Your task to perform on an android device: Is it going to rain this weekend? Image 0: 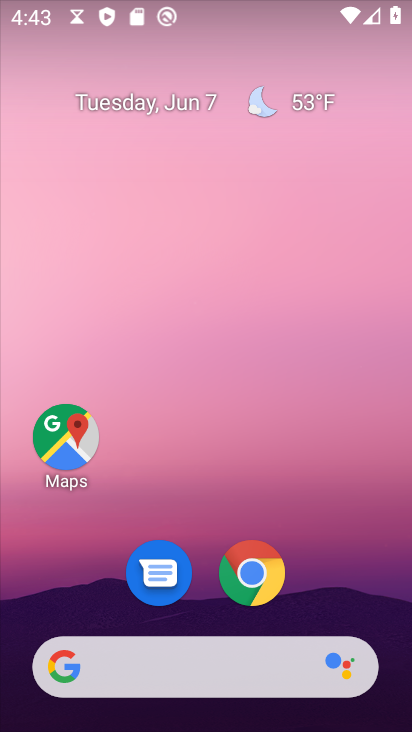
Step 0: click (220, 226)
Your task to perform on an android device: Is it going to rain this weekend? Image 1: 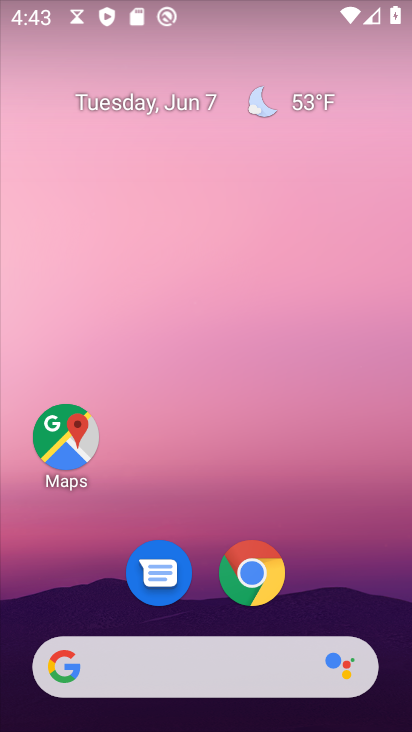
Step 1: drag from (244, 610) to (232, 101)
Your task to perform on an android device: Is it going to rain this weekend? Image 2: 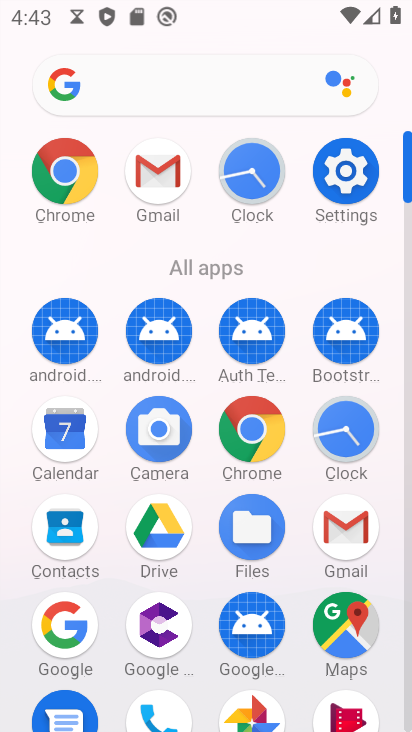
Step 2: click (68, 620)
Your task to perform on an android device: Is it going to rain this weekend? Image 3: 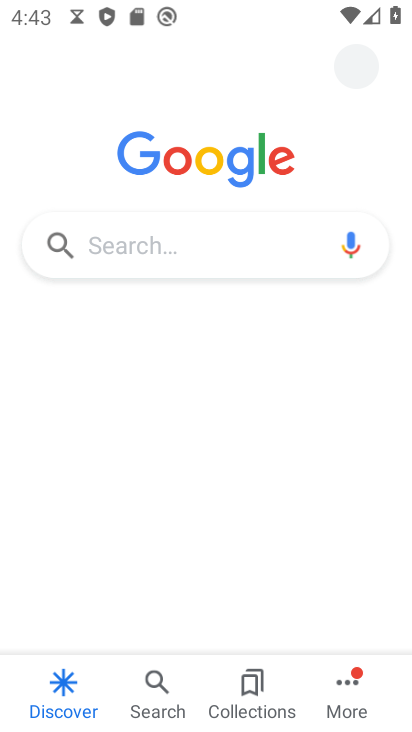
Step 3: click (141, 238)
Your task to perform on an android device: Is it going to rain this weekend? Image 4: 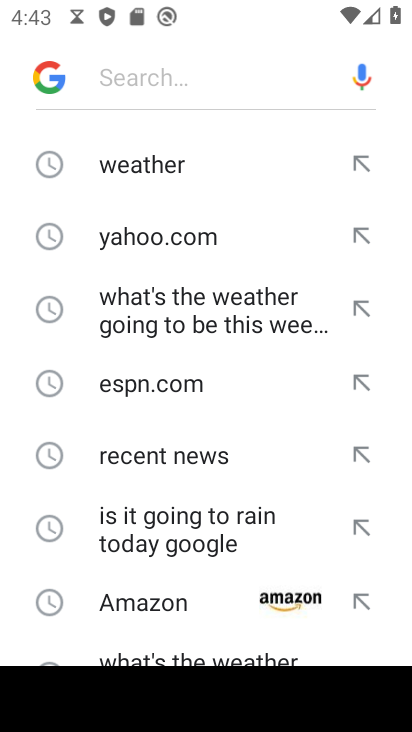
Step 4: drag from (157, 495) to (157, 107)
Your task to perform on an android device: Is it going to rain this weekend? Image 5: 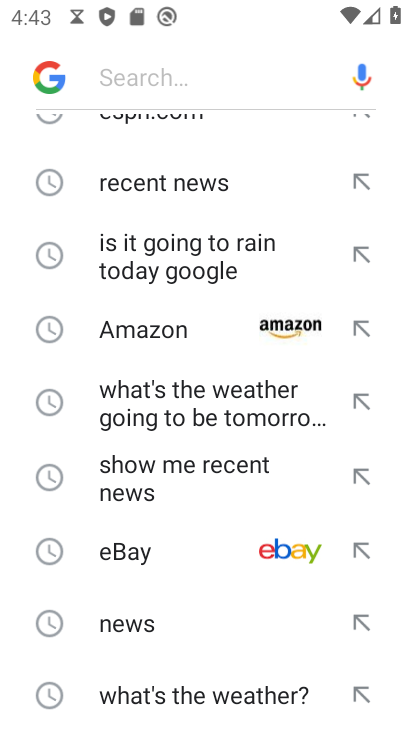
Step 5: drag from (124, 667) to (140, 278)
Your task to perform on an android device: Is it going to rain this weekend? Image 6: 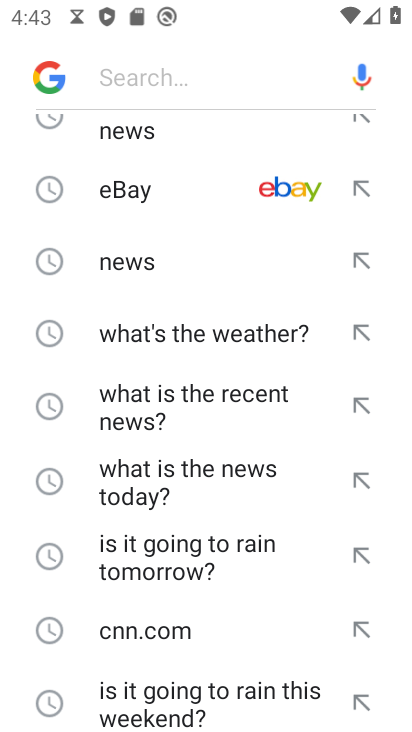
Step 6: drag from (157, 667) to (157, 312)
Your task to perform on an android device: Is it going to rain this weekend? Image 7: 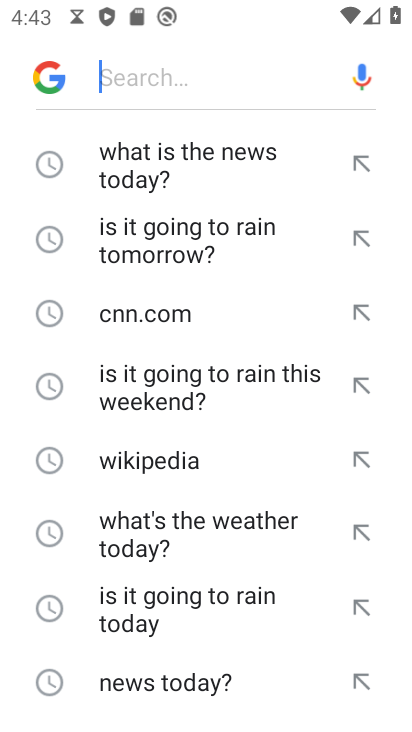
Step 7: click (156, 384)
Your task to perform on an android device: Is it going to rain this weekend? Image 8: 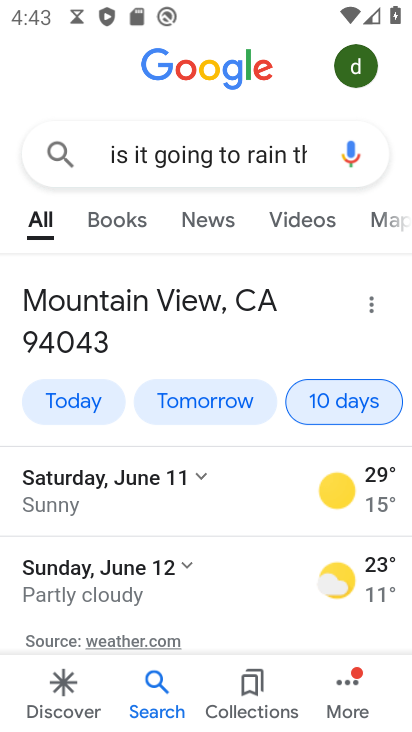
Step 8: task complete